Your task to perform on an android device: Go to calendar. Show me events next week Image 0: 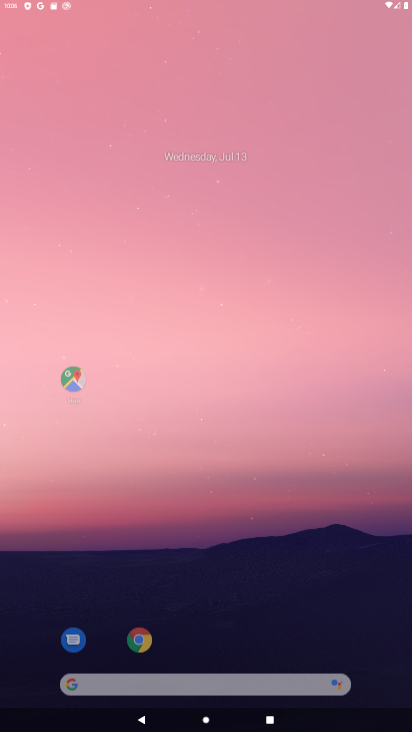
Step 0: click (225, 245)
Your task to perform on an android device: Go to calendar. Show me events next week Image 1: 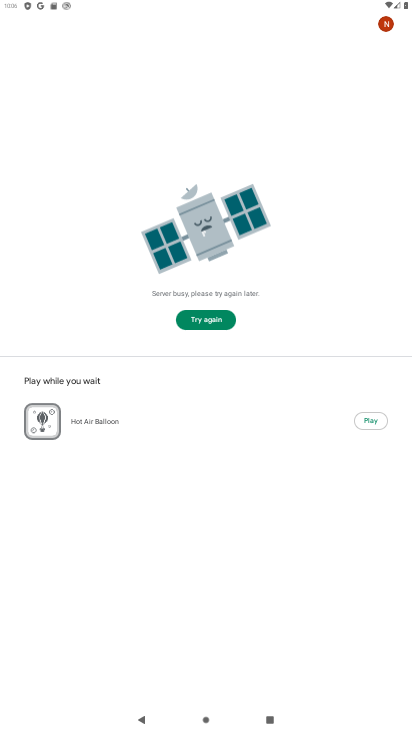
Step 1: press home button
Your task to perform on an android device: Go to calendar. Show me events next week Image 2: 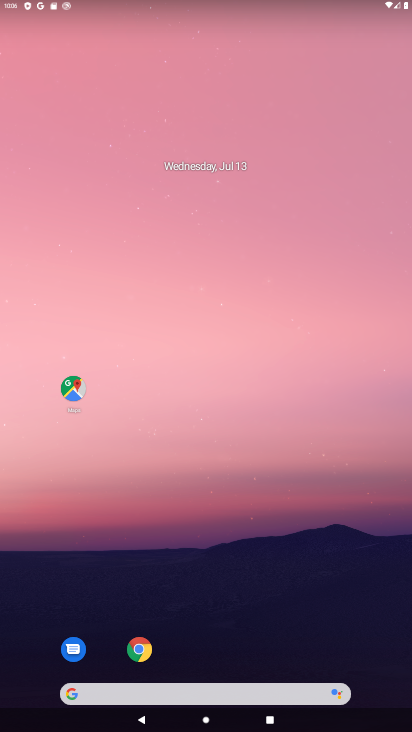
Step 2: drag from (271, 626) to (206, 271)
Your task to perform on an android device: Go to calendar. Show me events next week Image 3: 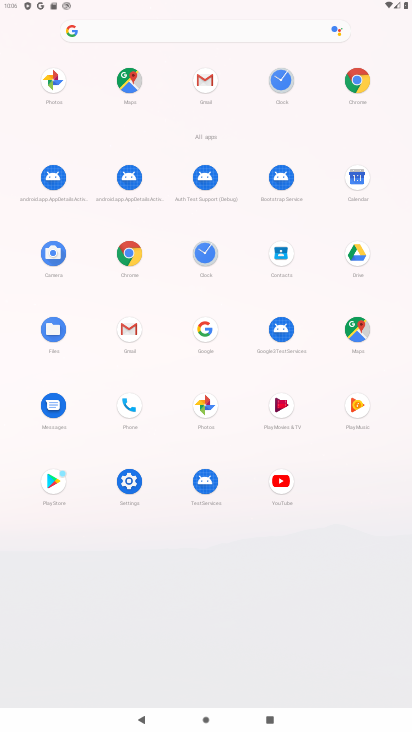
Step 3: click (352, 171)
Your task to perform on an android device: Go to calendar. Show me events next week Image 4: 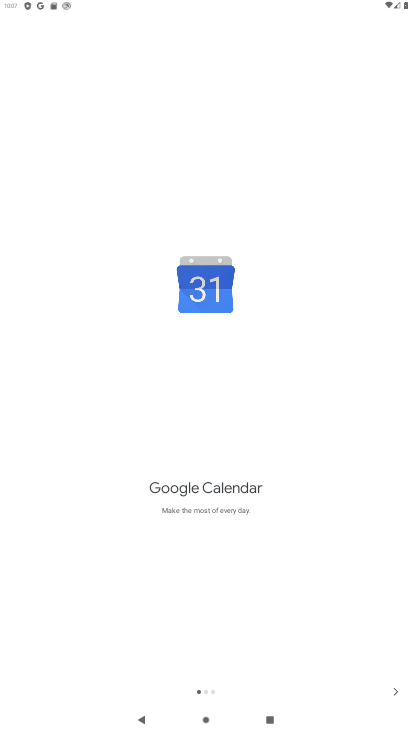
Step 4: click (391, 685)
Your task to perform on an android device: Go to calendar. Show me events next week Image 5: 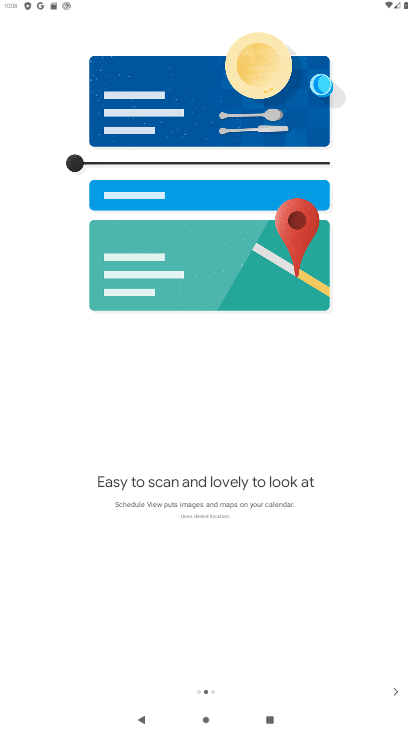
Step 5: click (387, 688)
Your task to perform on an android device: Go to calendar. Show me events next week Image 6: 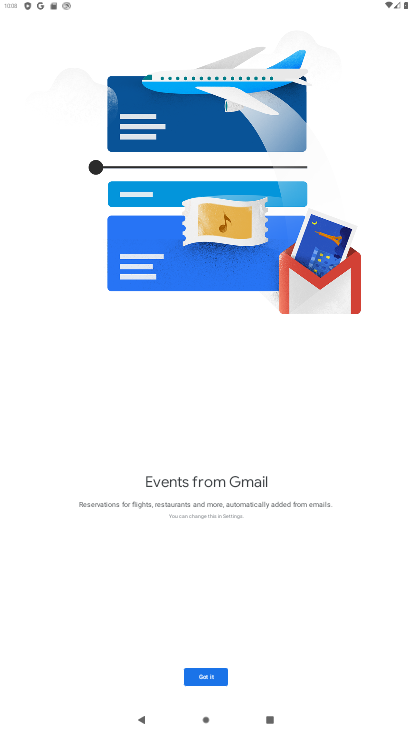
Step 6: click (207, 680)
Your task to perform on an android device: Go to calendar. Show me events next week Image 7: 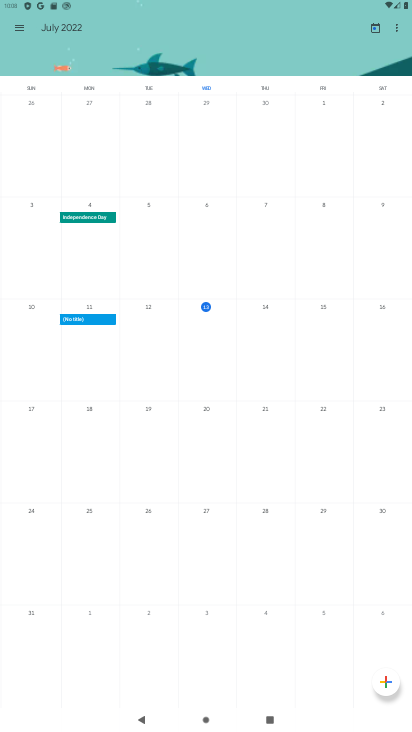
Step 7: click (16, 24)
Your task to perform on an android device: Go to calendar. Show me events next week Image 8: 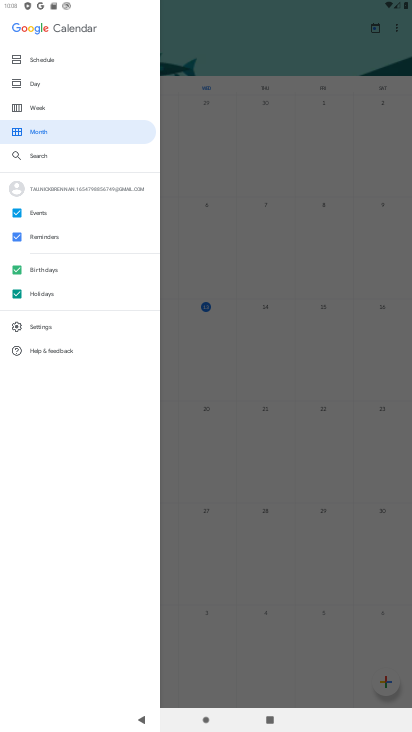
Step 8: click (37, 111)
Your task to perform on an android device: Go to calendar. Show me events next week Image 9: 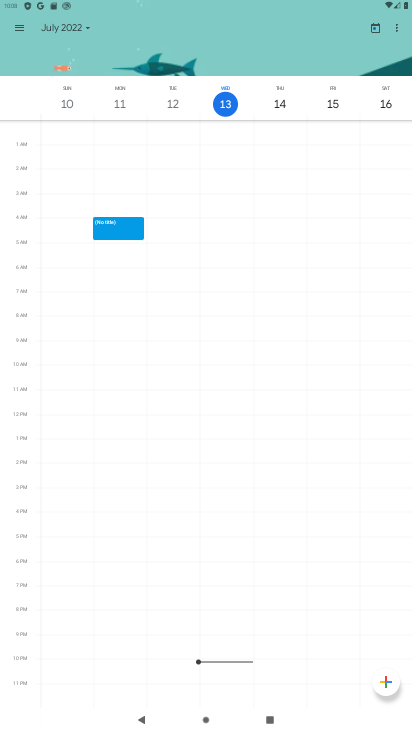
Step 9: task complete